Your task to perform on an android device: turn on airplane mode Image 0: 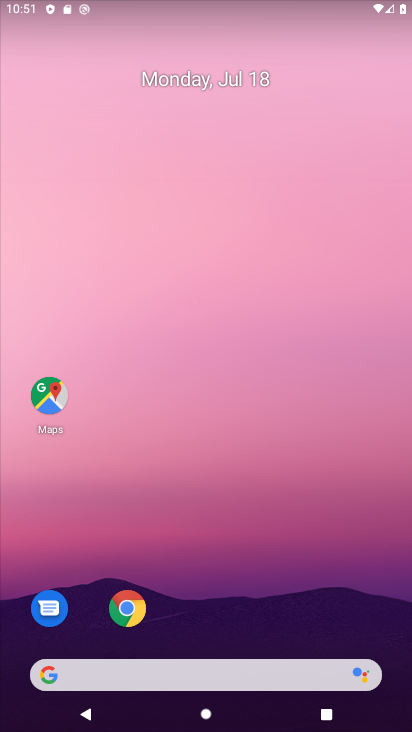
Step 0: drag from (222, 649) to (239, 145)
Your task to perform on an android device: turn on airplane mode Image 1: 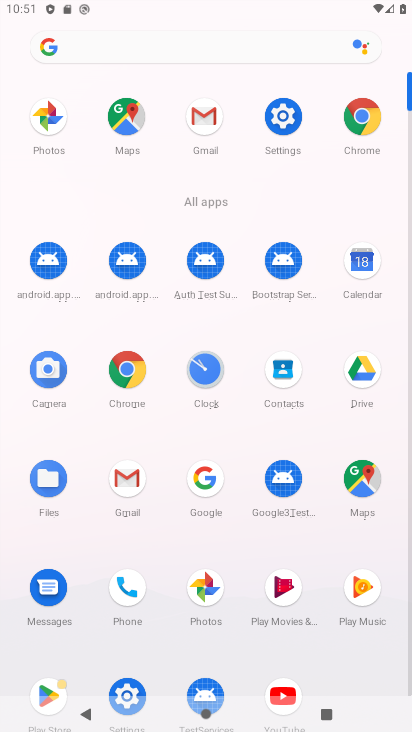
Step 1: click (126, 688)
Your task to perform on an android device: turn on airplane mode Image 2: 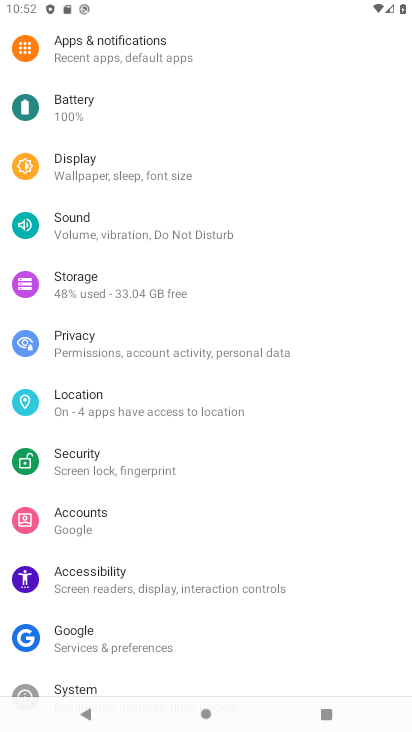
Step 2: drag from (205, 95) to (178, 406)
Your task to perform on an android device: turn on airplane mode Image 3: 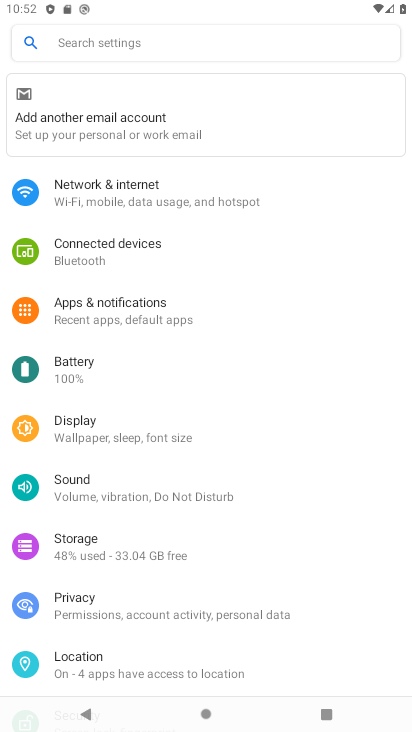
Step 3: click (155, 199)
Your task to perform on an android device: turn on airplane mode Image 4: 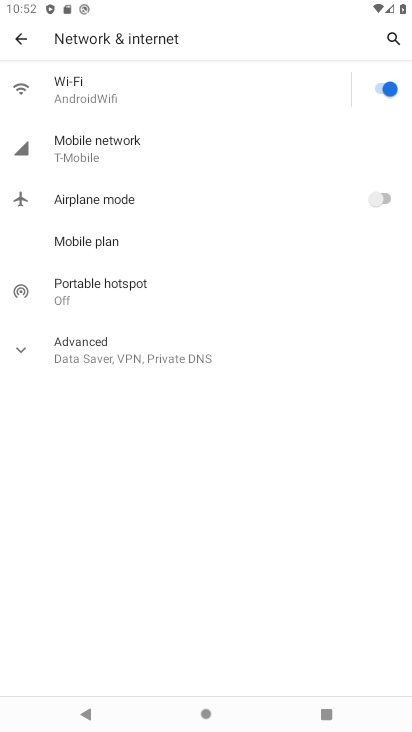
Step 4: click (400, 198)
Your task to perform on an android device: turn on airplane mode Image 5: 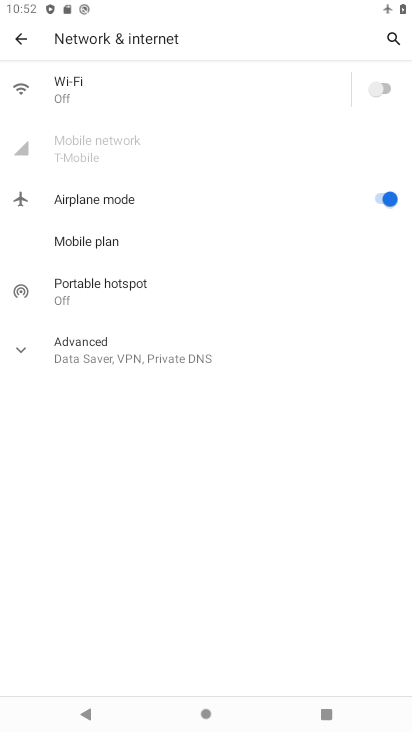
Step 5: task complete